Your task to perform on an android device: open wifi settings Image 0: 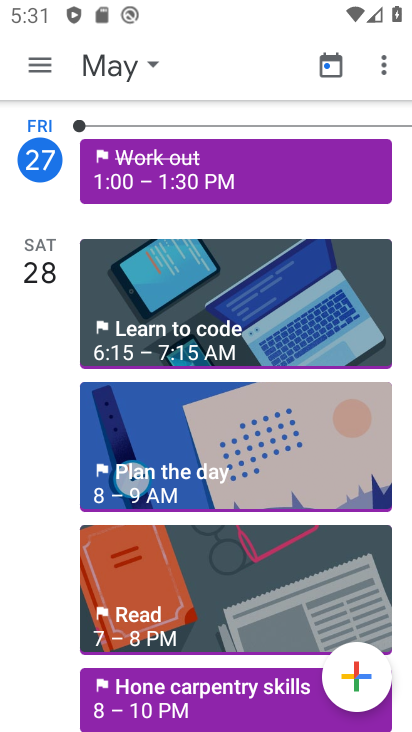
Step 0: press home button
Your task to perform on an android device: open wifi settings Image 1: 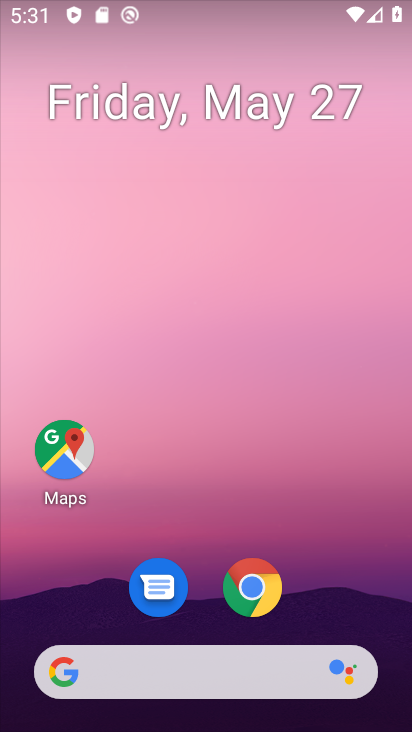
Step 1: drag from (307, 488) to (209, 75)
Your task to perform on an android device: open wifi settings Image 2: 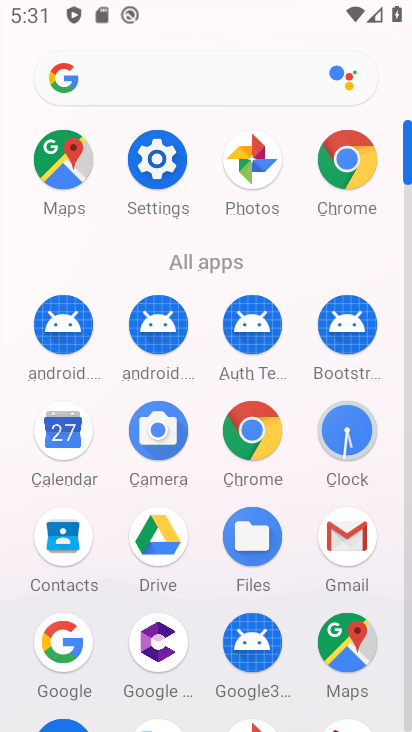
Step 2: click (152, 165)
Your task to perform on an android device: open wifi settings Image 3: 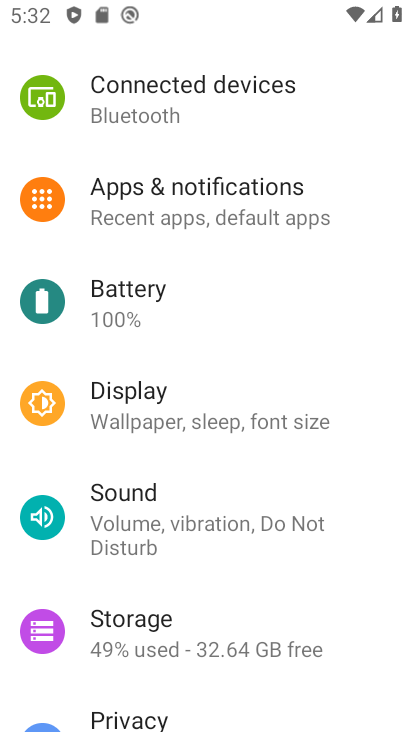
Step 3: task complete